Your task to perform on an android device: turn on wifi Image 0: 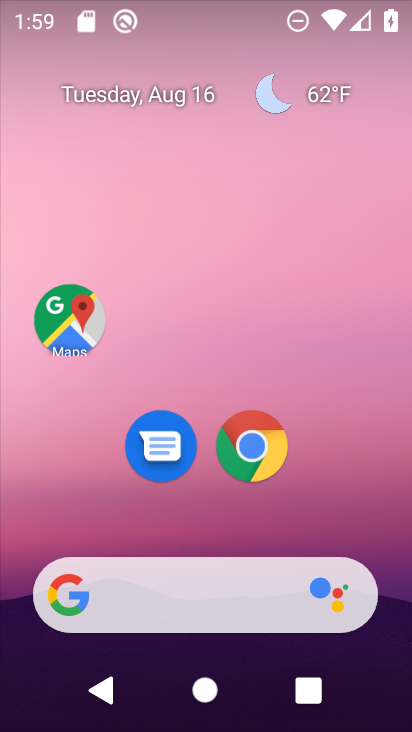
Step 0: drag from (207, 536) to (221, 29)
Your task to perform on an android device: turn on wifi Image 1: 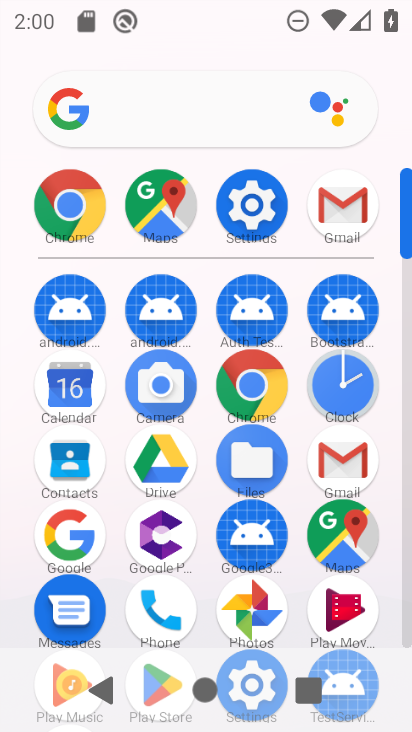
Step 1: task complete